Your task to perform on an android device: Check the weather Image 0: 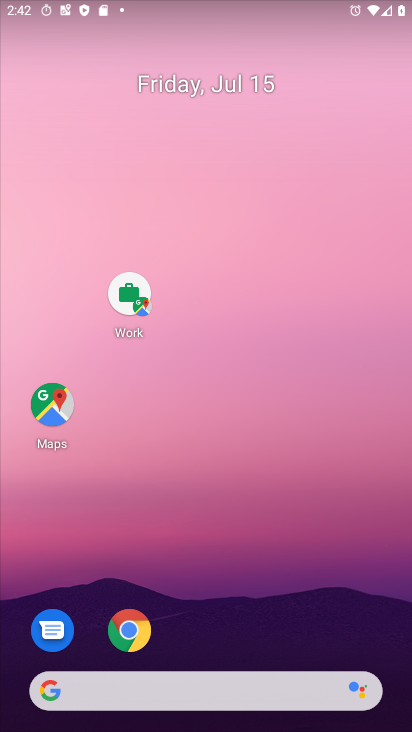
Step 0: drag from (192, 647) to (188, 246)
Your task to perform on an android device: Check the weather Image 1: 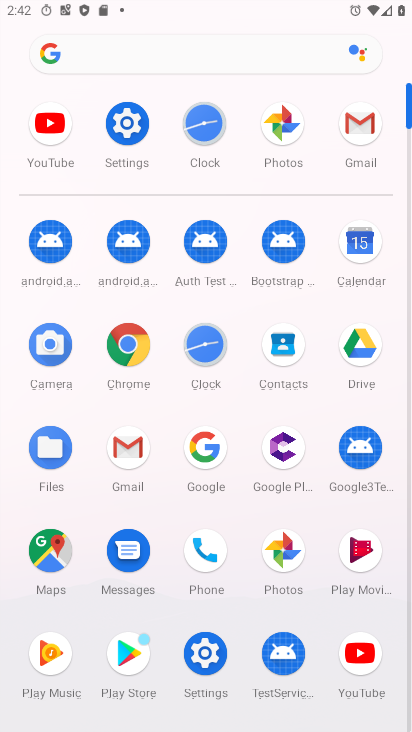
Step 1: click (206, 445)
Your task to perform on an android device: Check the weather Image 2: 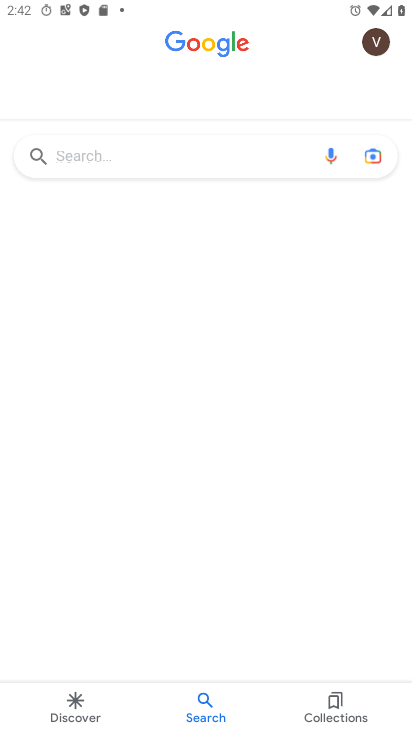
Step 2: click (82, 151)
Your task to perform on an android device: Check the weather Image 3: 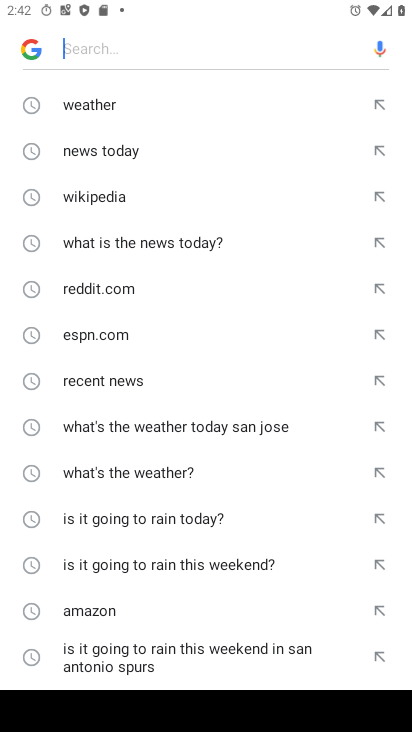
Step 3: click (110, 100)
Your task to perform on an android device: Check the weather Image 4: 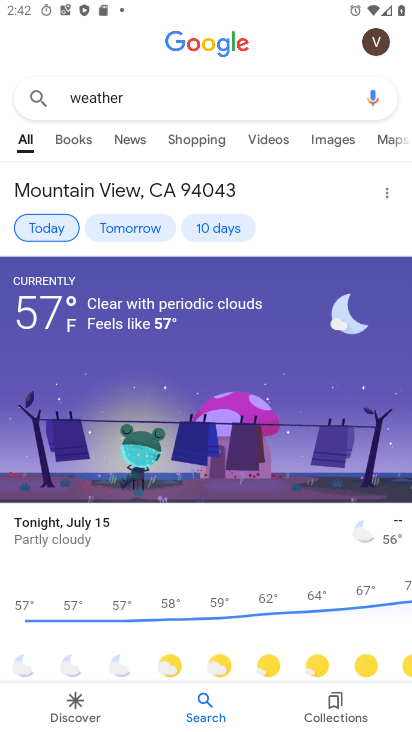
Step 4: task complete